Your task to perform on an android device: turn off notifications settings in the gmail app Image 0: 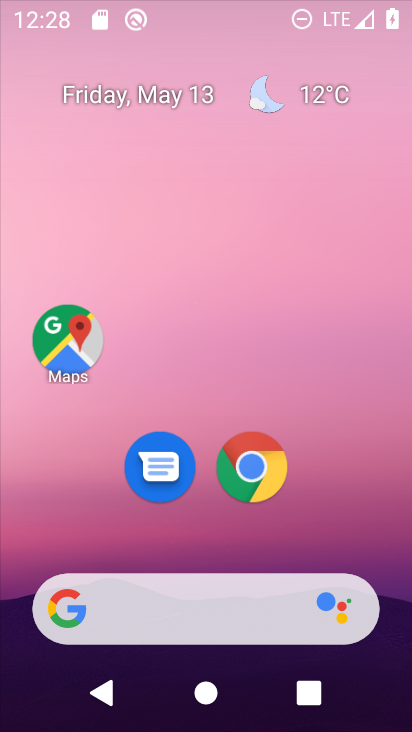
Step 0: drag from (341, 536) to (168, 6)
Your task to perform on an android device: turn off notifications settings in the gmail app Image 1: 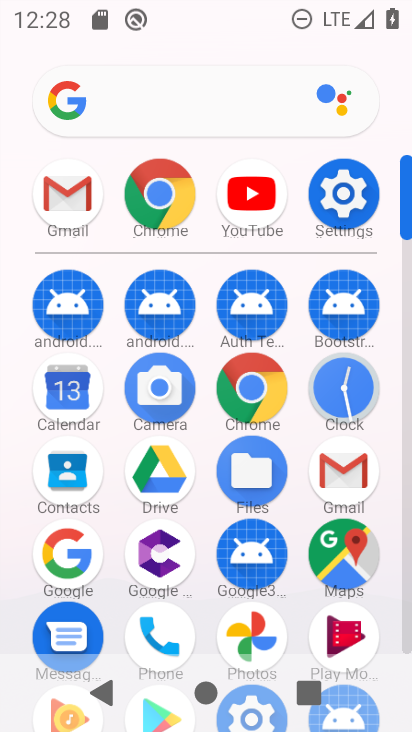
Step 1: drag from (20, 566) to (41, 248)
Your task to perform on an android device: turn off notifications settings in the gmail app Image 2: 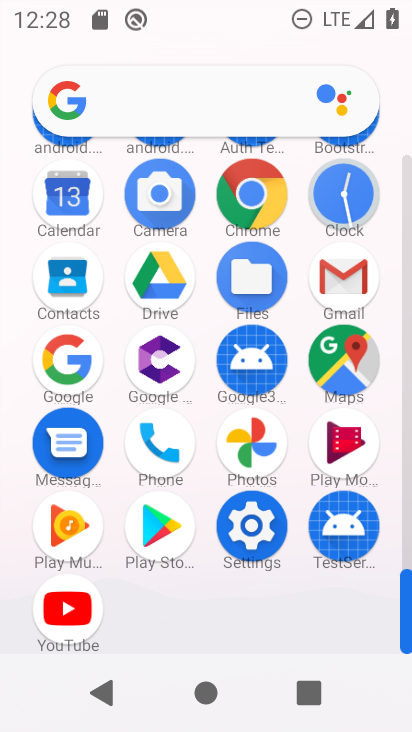
Step 2: click (341, 269)
Your task to perform on an android device: turn off notifications settings in the gmail app Image 3: 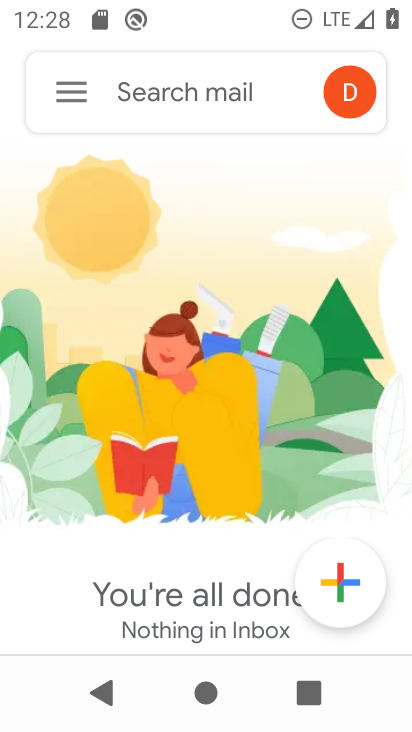
Step 3: click (69, 79)
Your task to perform on an android device: turn off notifications settings in the gmail app Image 4: 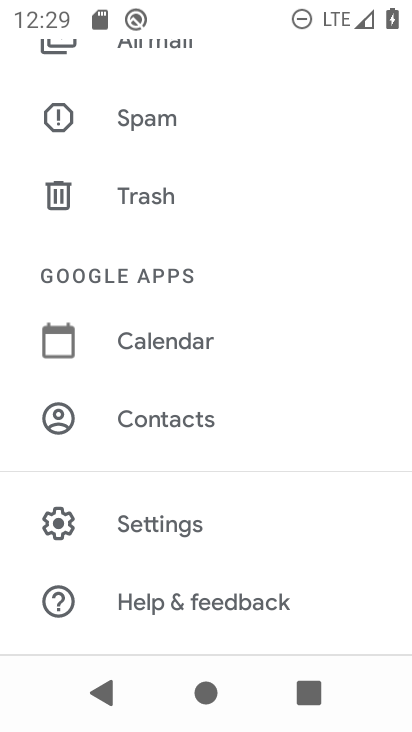
Step 4: drag from (250, 181) to (262, 515)
Your task to perform on an android device: turn off notifications settings in the gmail app Image 5: 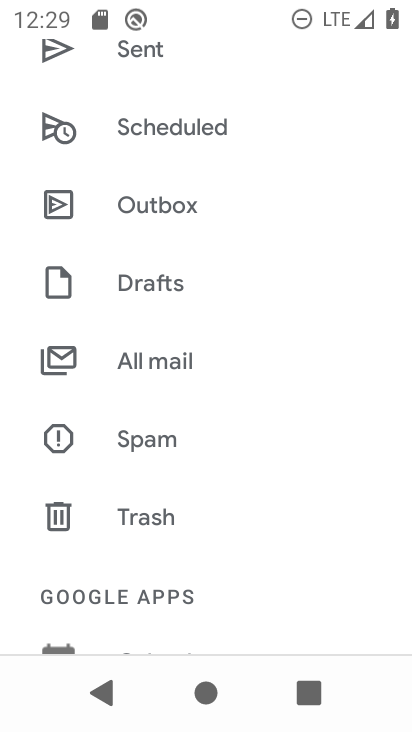
Step 5: drag from (306, 505) to (305, 42)
Your task to perform on an android device: turn off notifications settings in the gmail app Image 6: 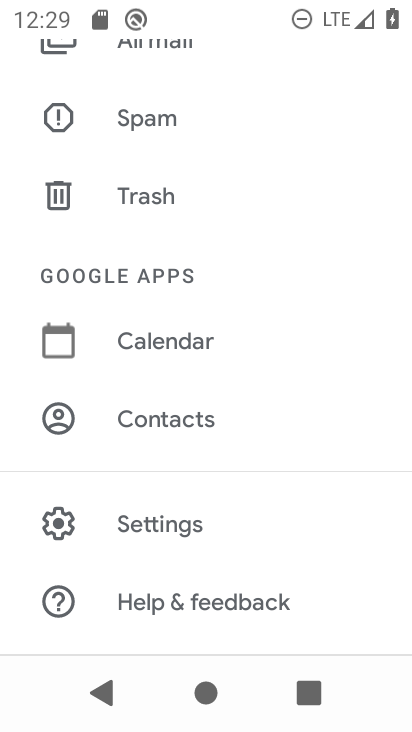
Step 6: click (125, 506)
Your task to perform on an android device: turn off notifications settings in the gmail app Image 7: 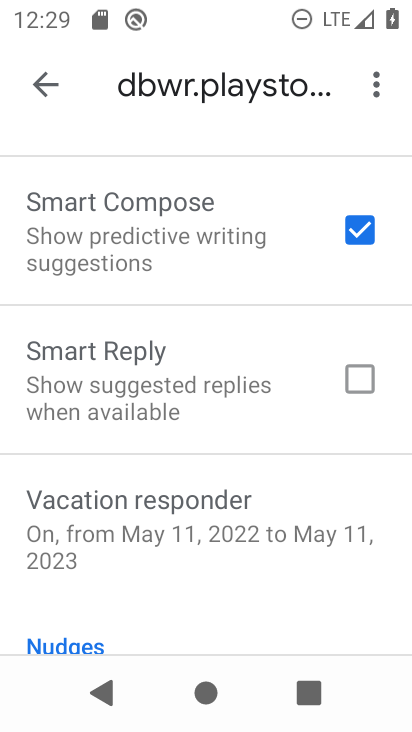
Step 7: drag from (187, 559) to (225, 114)
Your task to perform on an android device: turn off notifications settings in the gmail app Image 8: 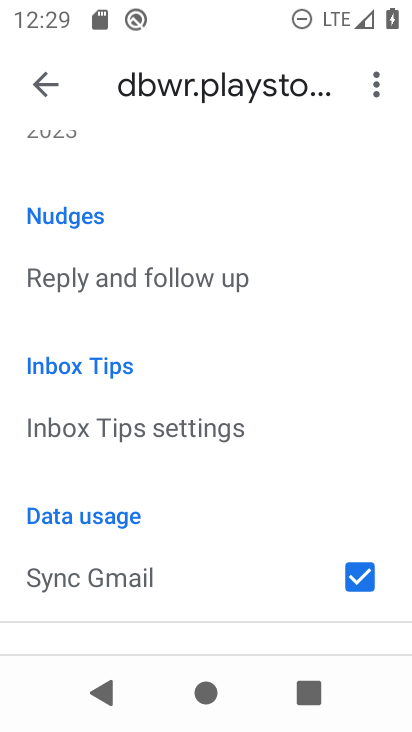
Step 8: drag from (152, 528) to (207, 144)
Your task to perform on an android device: turn off notifications settings in the gmail app Image 9: 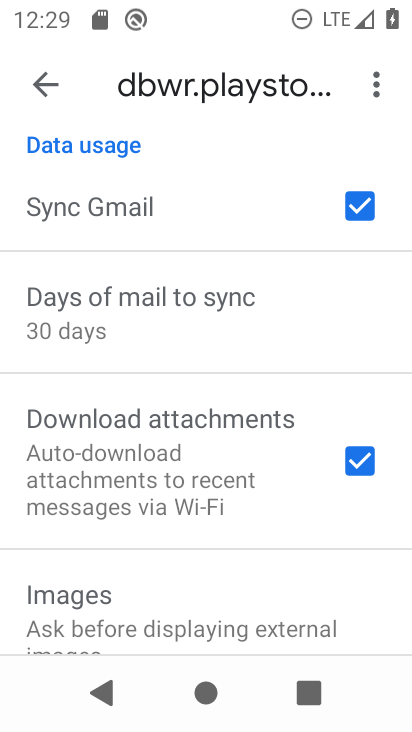
Step 9: drag from (181, 549) to (204, 224)
Your task to perform on an android device: turn off notifications settings in the gmail app Image 10: 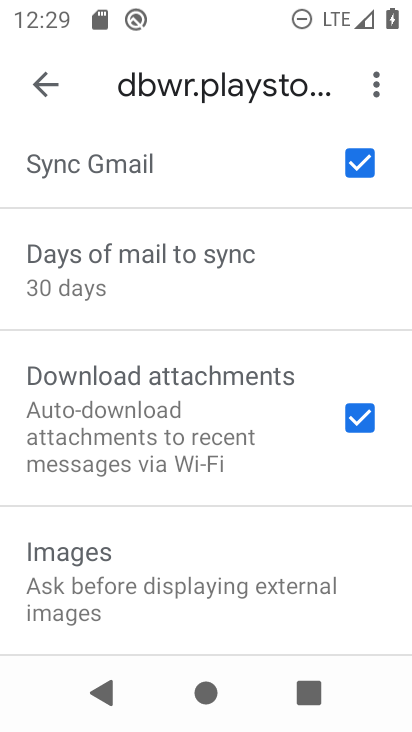
Step 10: drag from (159, 605) to (171, 172)
Your task to perform on an android device: turn off notifications settings in the gmail app Image 11: 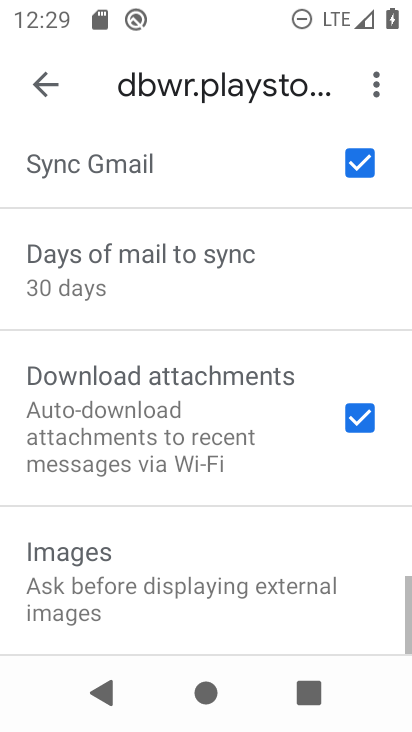
Step 11: click (39, 81)
Your task to perform on an android device: turn off notifications settings in the gmail app Image 12: 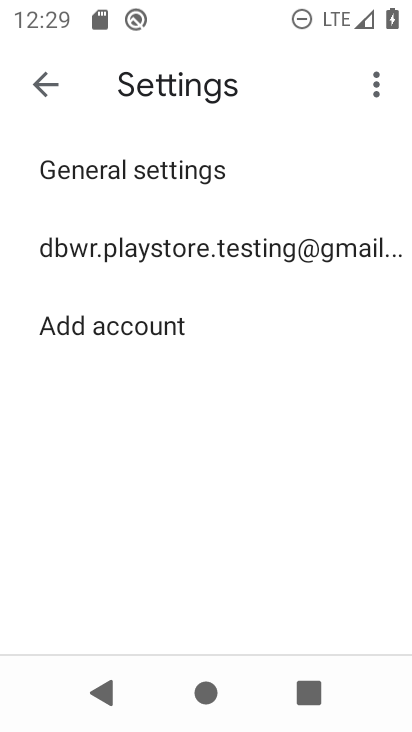
Step 12: click (136, 234)
Your task to perform on an android device: turn off notifications settings in the gmail app Image 13: 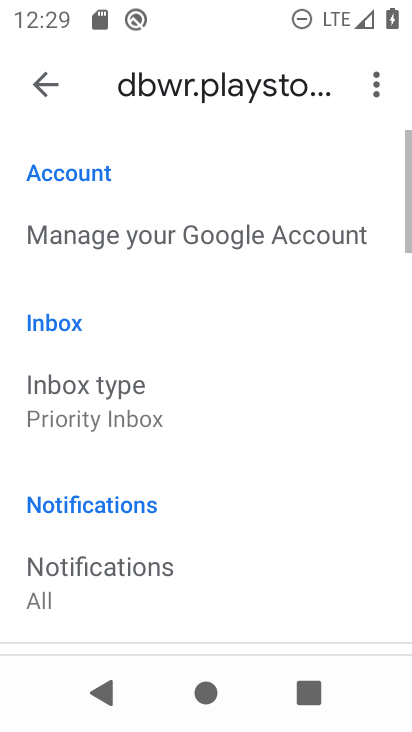
Step 13: drag from (225, 508) to (224, 149)
Your task to perform on an android device: turn off notifications settings in the gmail app Image 14: 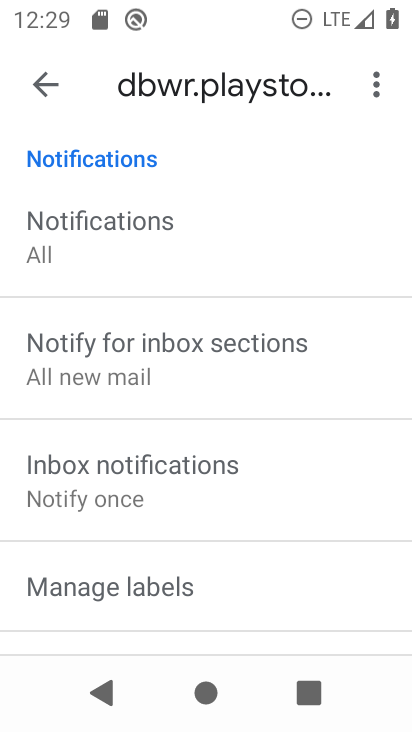
Step 14: drag from (198, 541) to (235, 175)
Your task to perform on an android device: turn off notifications settings in the gmail app Image 15: 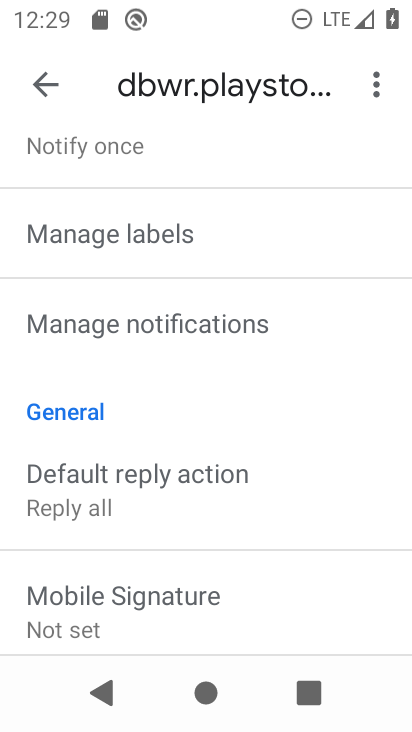
Step 15: click (166, 319)
Your task to perform on an android device: turn off notifications settings in the gmail app Image 16: 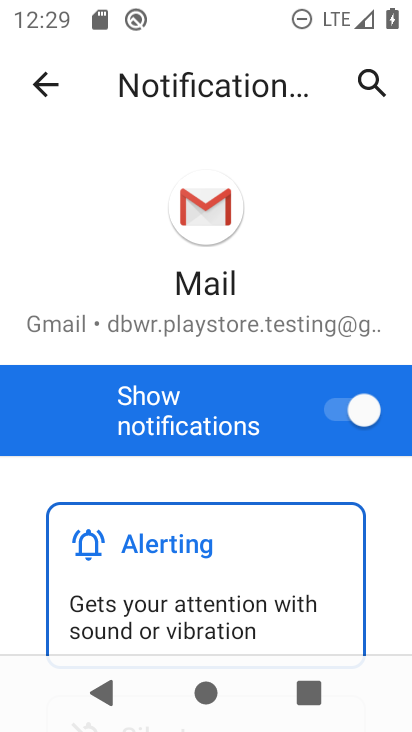
Step 16: click (327, 403)
Your task to perform on an android device: turn off notifications settings in the gmail app Image 17: 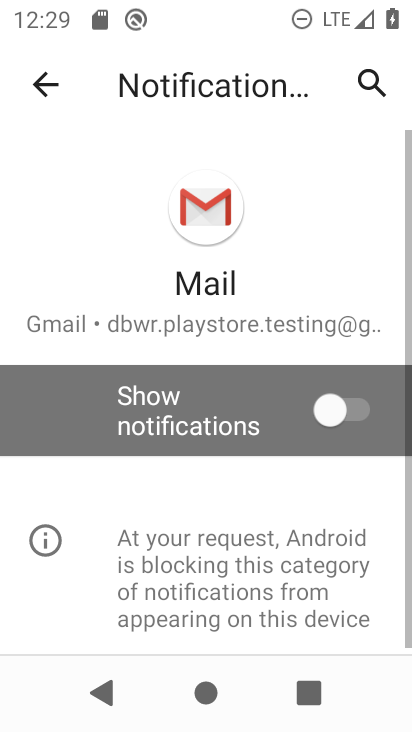
Step 17: task complete